Your task to perform on an android device: delete the emails in spam in the gmail app Image 0: 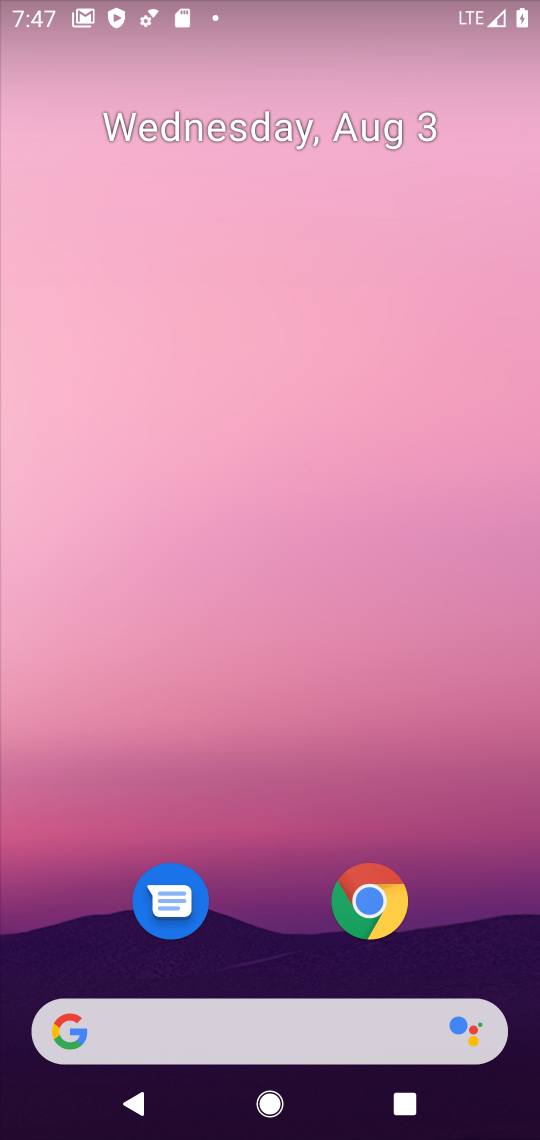
Step 0: drag from (499, 945) to (445, 282)
Your task to perform on an android device: delete the emails in spam in the gmail app Image 1: 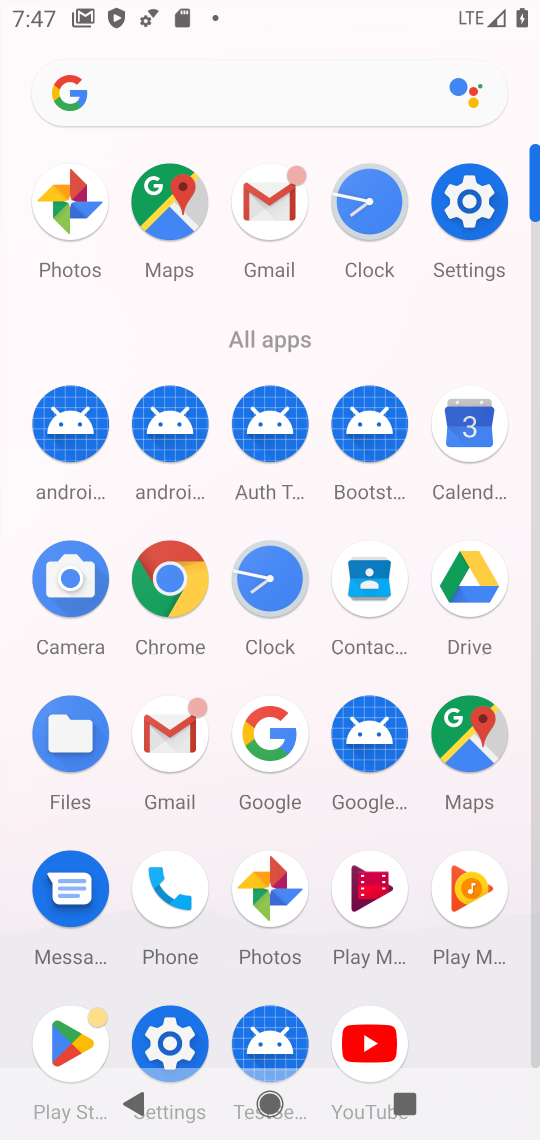
Step 1: click (278, 226)
Your task to perform on an android device: delete the emails in spam in the gmail app Image 2: 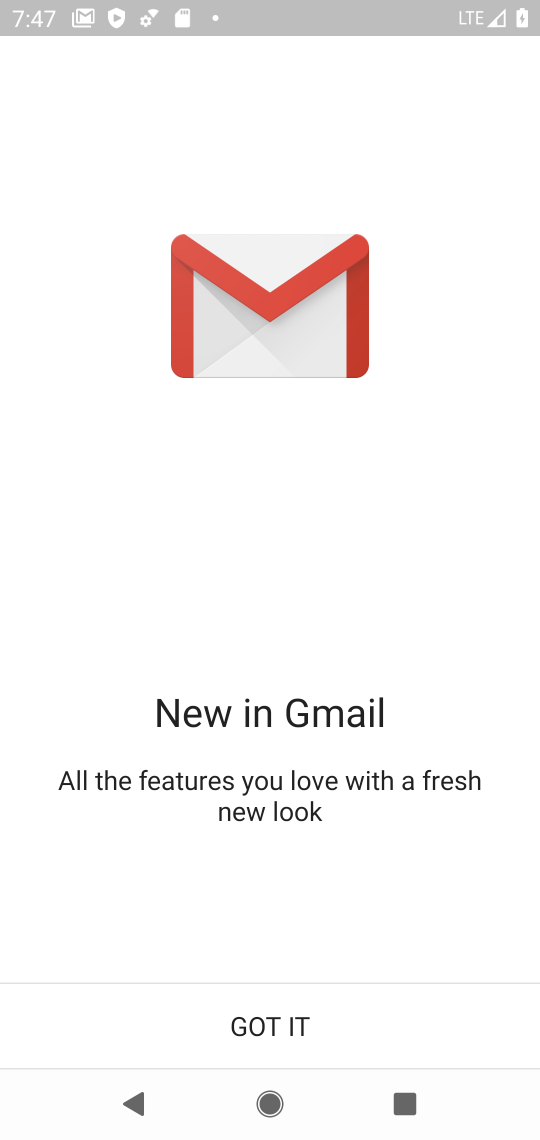
Step 2: click (231, 1034)
Your task to perform on an android device: delete the emails in spam in the gmail app Image 3: 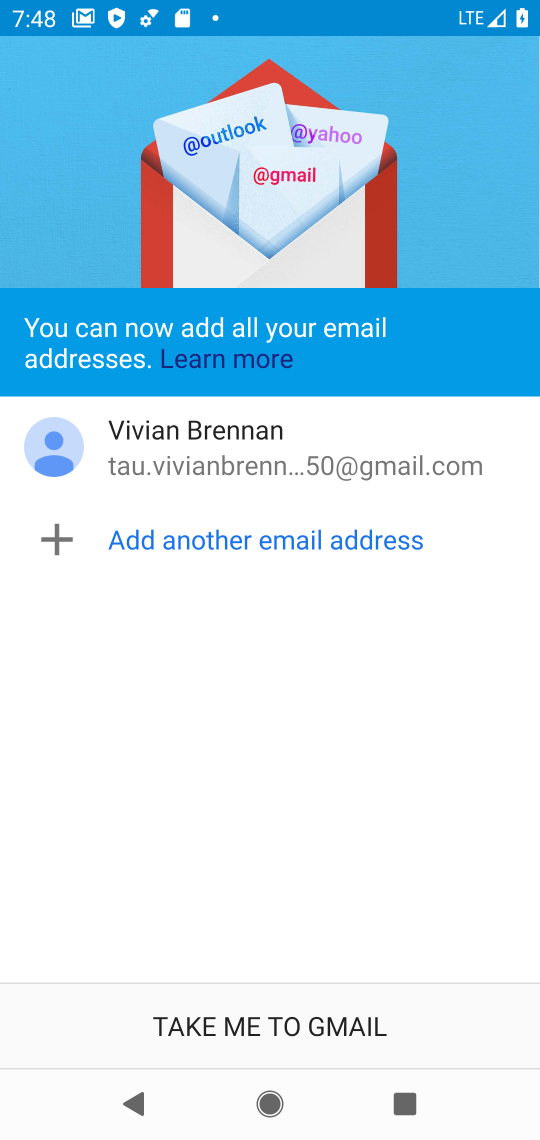
Step 3: click (231, 1034)
Your task to perform on an android device: delete the emails in spam in the gmail app Image 4: 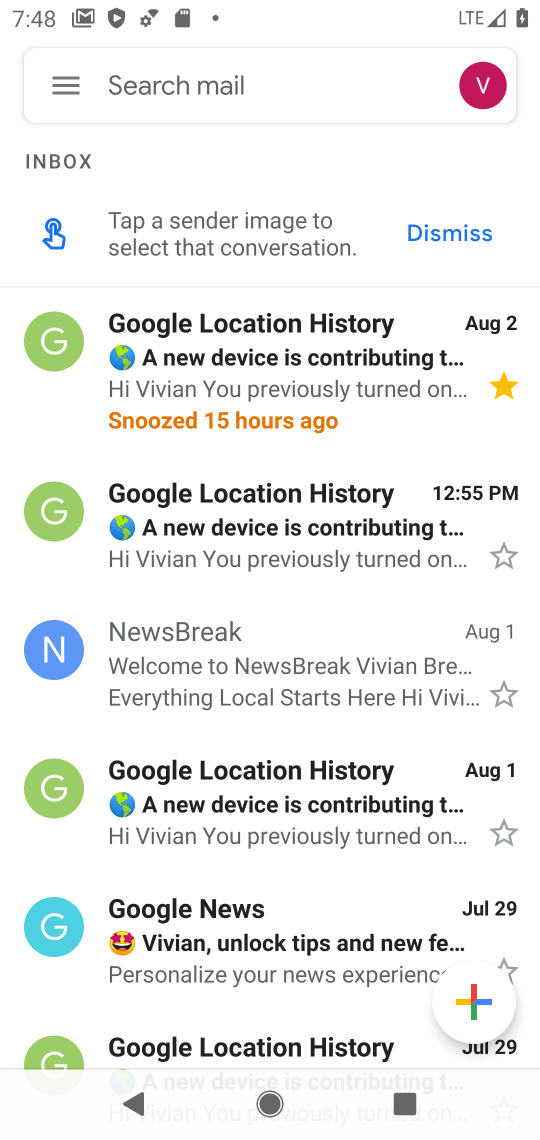
Step 4: click (68, 76)
Your task to perform on an android device: delete the emails in spam in the gmail app Image 5: 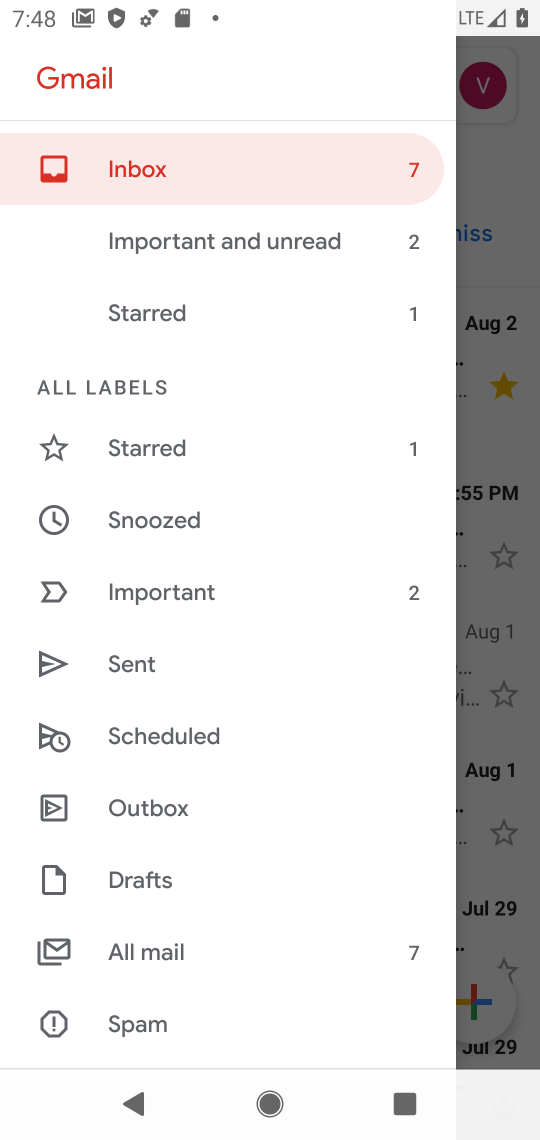
Step 5: click (253, 1029)
Your task to perform on an android device: delete the emails in spam in the gmail app Image 6: 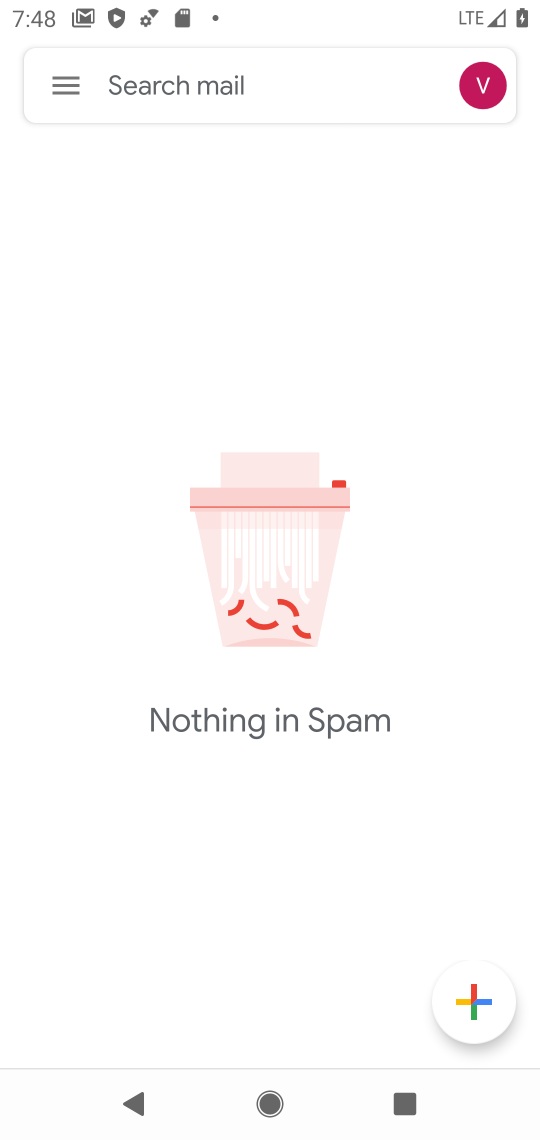
Step 6: task complete